Your task to perform on an android device: Go to settings Image 0: 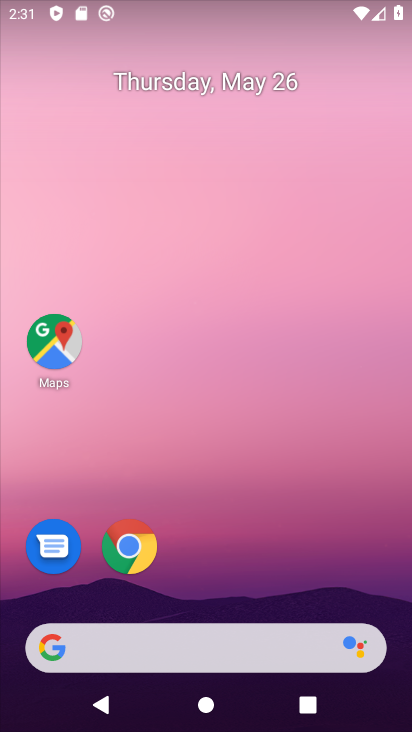
Step 0: drag from (407, 574) to (397, 112)
Your task to perform on an android device: Go to settings Image 1: 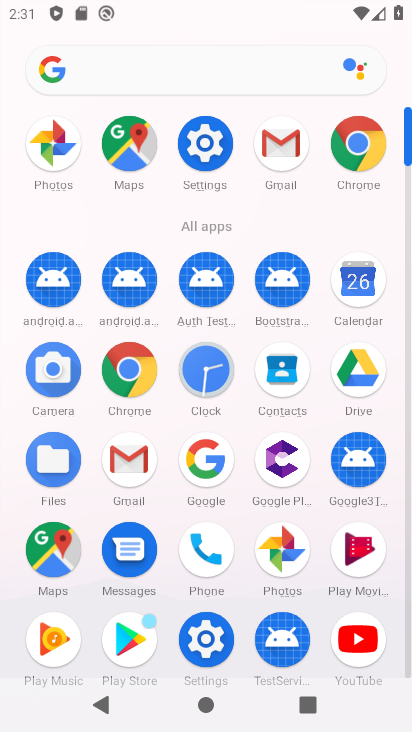
Step 1: click (200, 130)
Your task to perform on an android device: Go to settings Image 2: 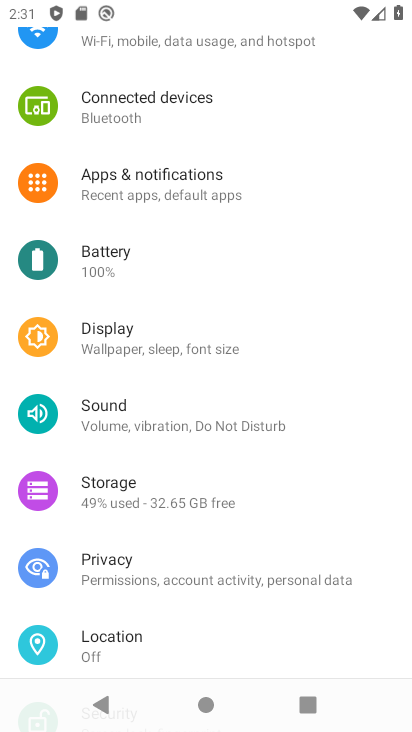
Step 2: task complete